Your task to perform on an android device: open chrome privacy settings Image 0: 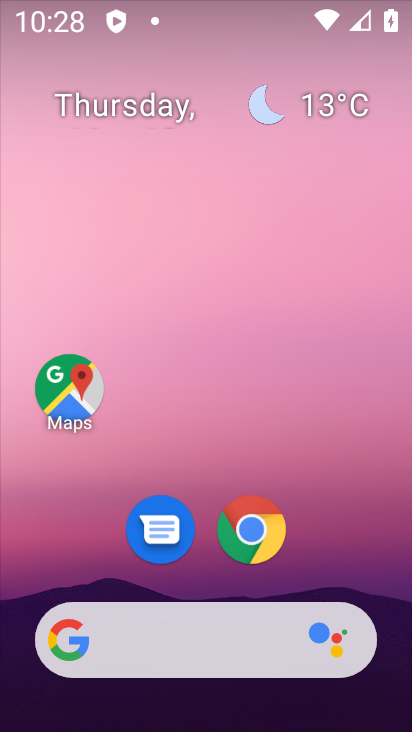
Step 0: click (252, 529)
Your task to perform on an android device: open chrome privacy settings Image 1: 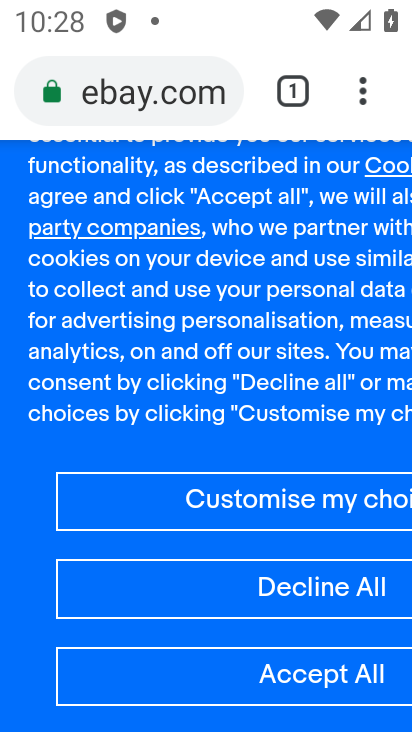
Step 1: click (362, 104)
Your task to perform on an android device: open chrome privacy settings Image 2: 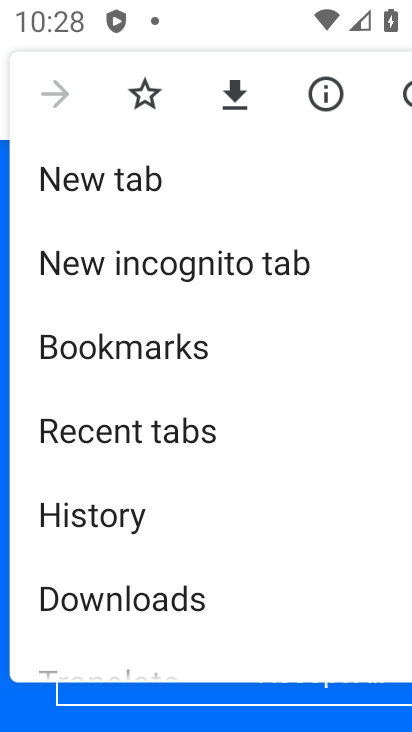
Step 2: drag from (169, 600) to (231, 358)
Your task to perform on an android device: open chrome privacy settings Image 3: 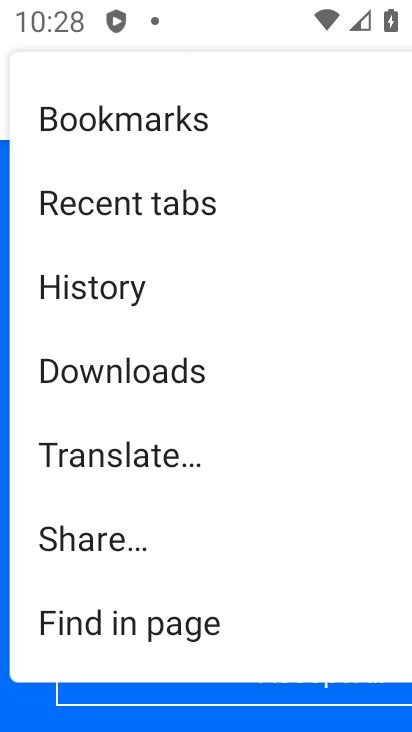
Step 3: drag from (215, 560) to (234, 389)
Your task to perform on an android device: open chrome privacy settings Image 4: 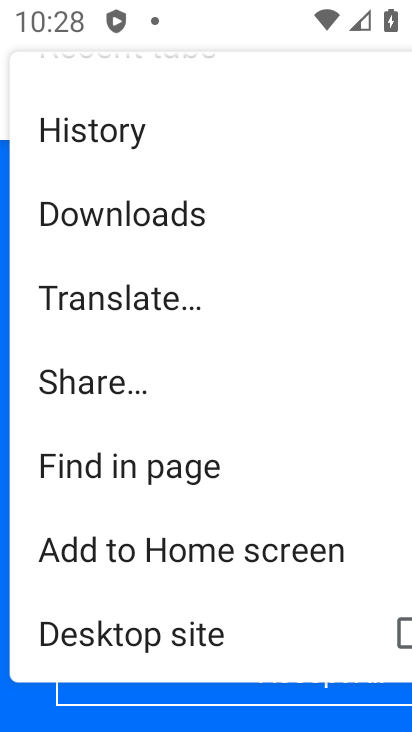
Step 4: drag from (193, 568) to (198, 394)
Your task to perform on an android device: open chrome privacy settings Image 5: 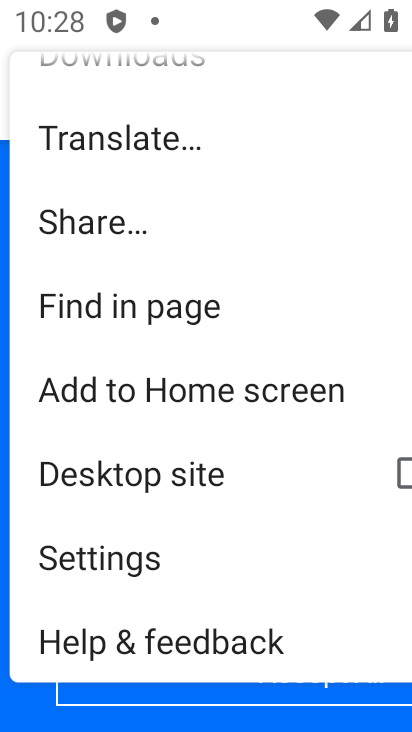
Step 5: click (189, 559)
Your task to perform on an android device: open chrome privacy settings Image 6: 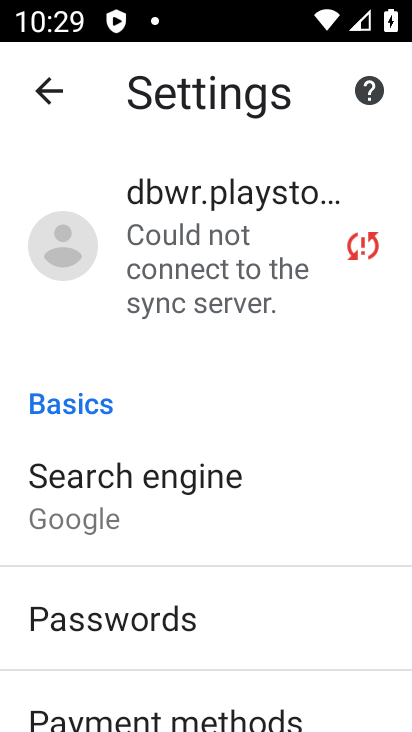
Step 6: drag from (165, 637) to (179, 521)
Your task to perform on an android device: open chrome privacy settings Image 7: 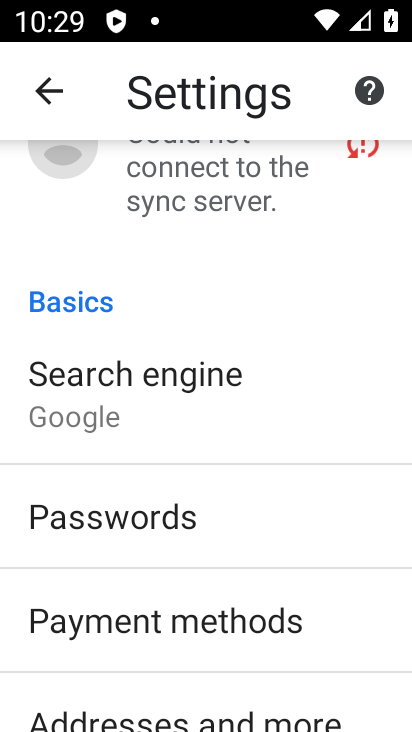
Step 7: drag from (177, 629) to (174, 518)
Your task to perform on an android device: open chrome privacy settings Image 8: 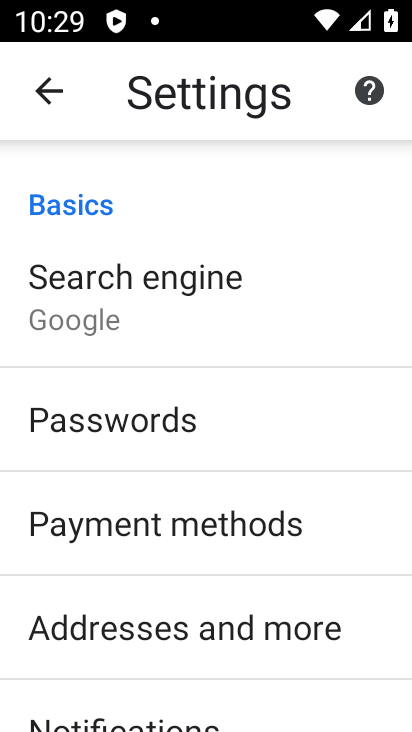
Step 8: drag from (160, 596) to (164, 507)
Your task to perform on an android device: open chrome privacy settings Image 9: 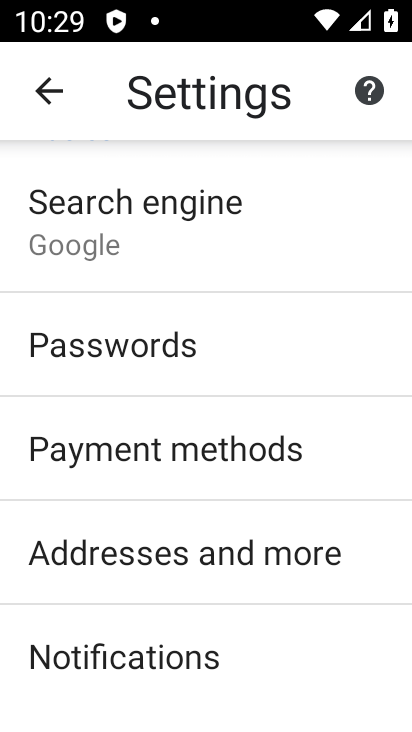
Step 9: drag from (162, 590) to (171, 503)
Your task to perform on an android device: open chrome privacy settings Image 10: 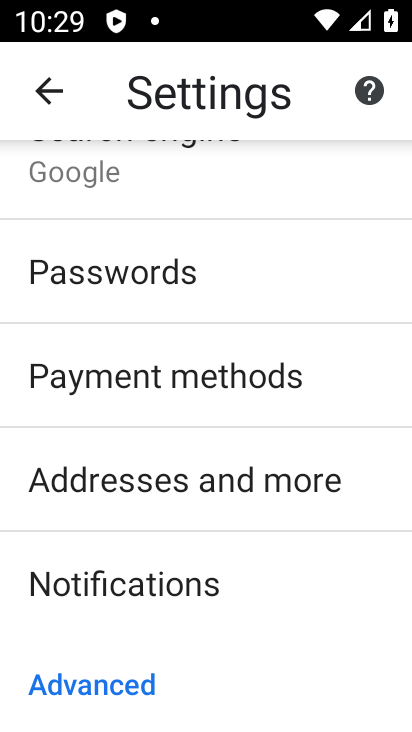
Step 10: drag from (152, 623) to (163, 508)
Your task to perform on an android device: open chrome privacy settings Image 11: 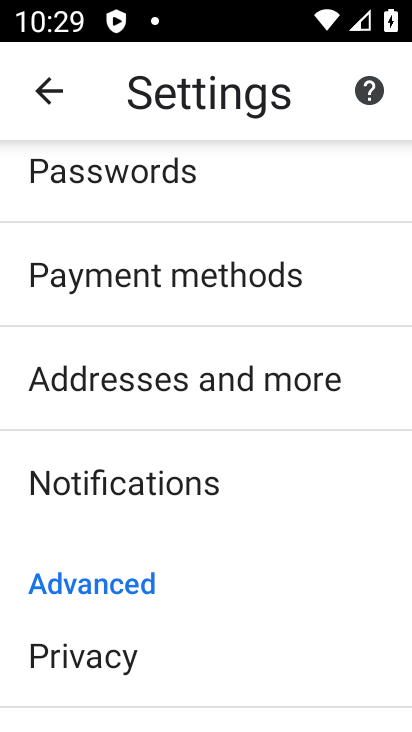
Step 11: click (140, 656)
Your task to perform on an android device: open chrome privacy settings Image 12: 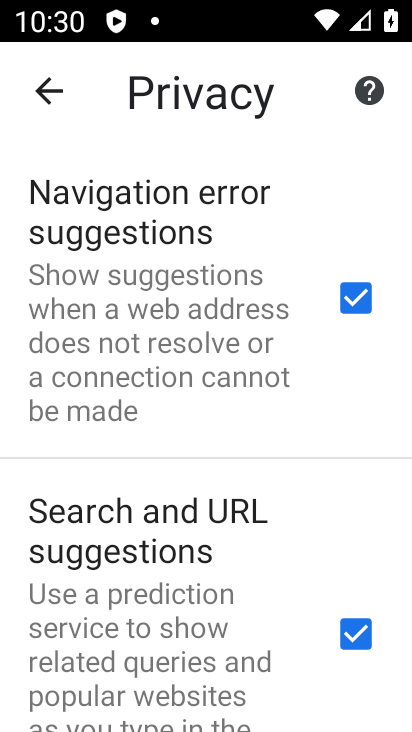
Step 12: task complete